Your task to perform on an android device: set default search engine in the chrome app Image 0: 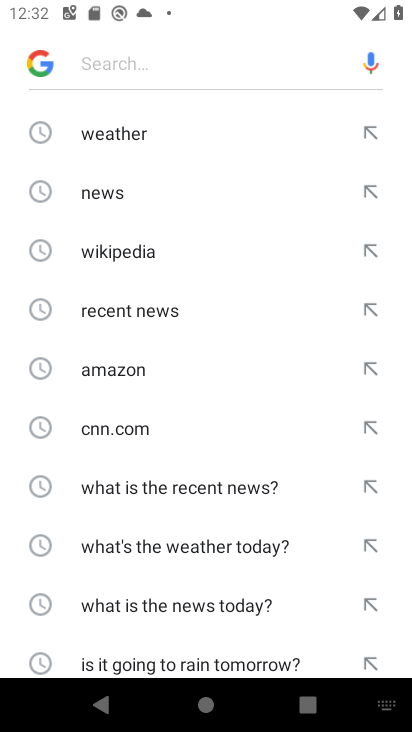
Step 0: press home button
Your task to perform on an android device: set default search engine in the chrome app Image 1: 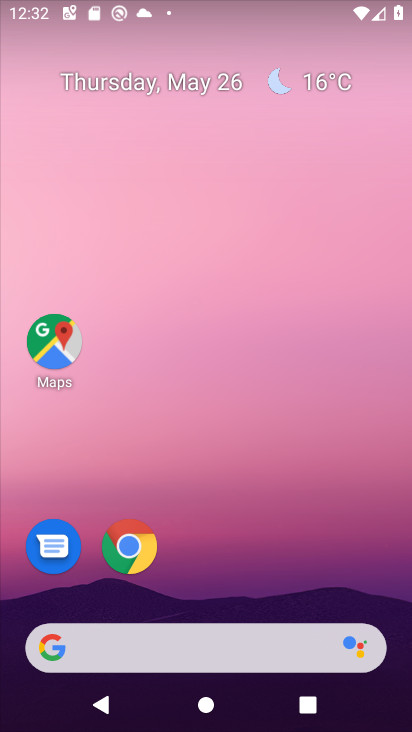
Step 1: click (131, 546)
Your task to perform on an android device: set default search engine in the chrome app Image 2: 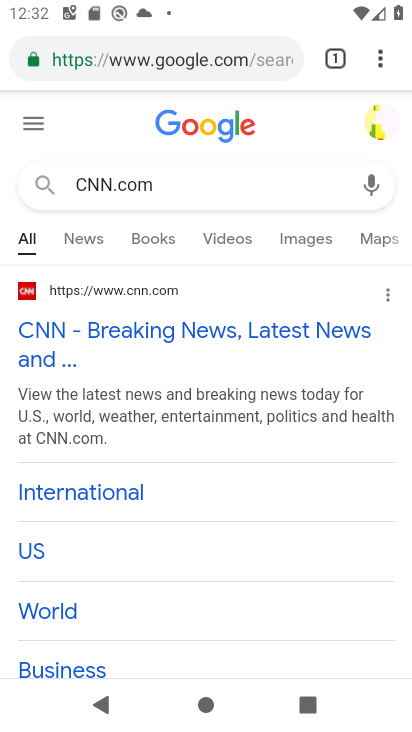
Step 2: click (381, 56)
Your task to perform on an android device: set default search engine in the chrome app Image 3: 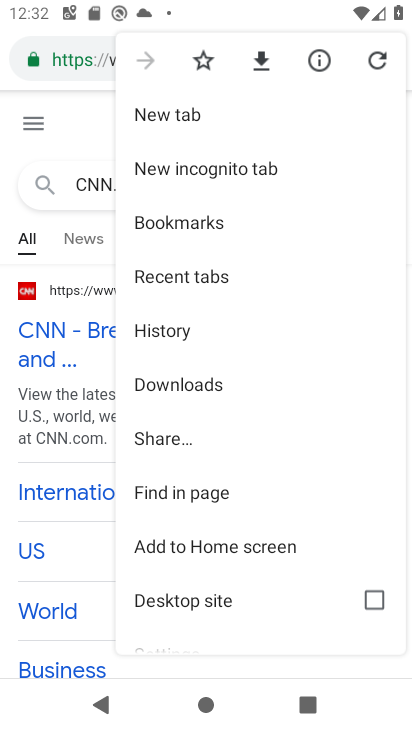
Step 3: drag from (207, 566) to (298, 196)
Your task to perform on an android device: set default search engine in the chrome app Image 4: 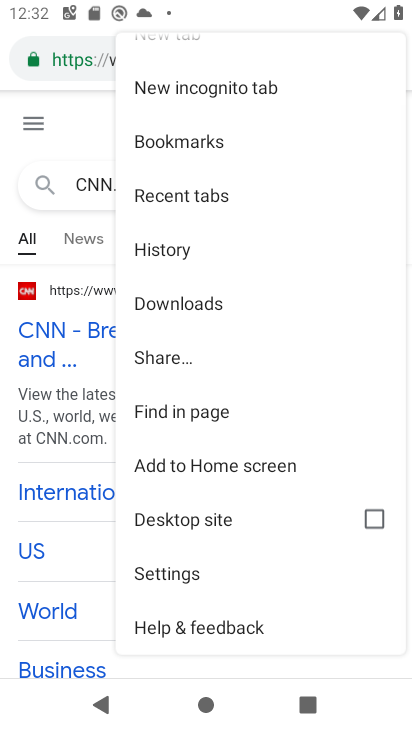
Step 4: click (176, 568)
Your task to perform on an android device: set default search engine in the chrome app Image 5: 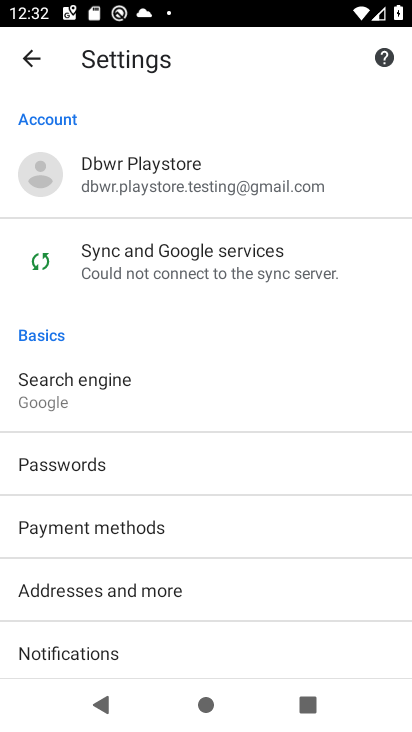
Step 5: click (79, 384)
Your task to perform on an android device: set default search engine in the chrome app Image 6: 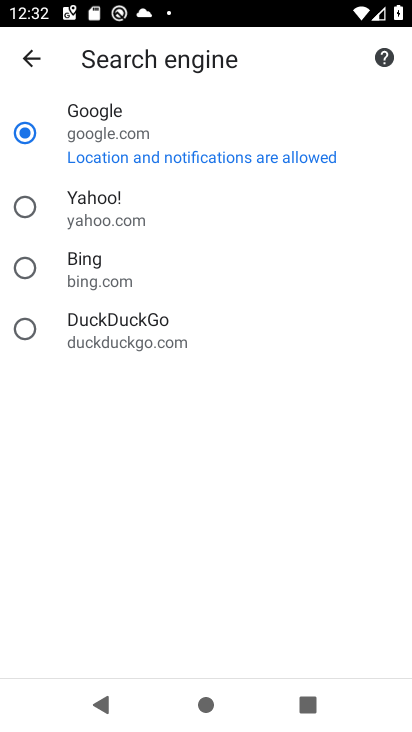
Step 6: task complete